Your task to perform on an android device: Show me productivity apps on the Play Store Image 0: 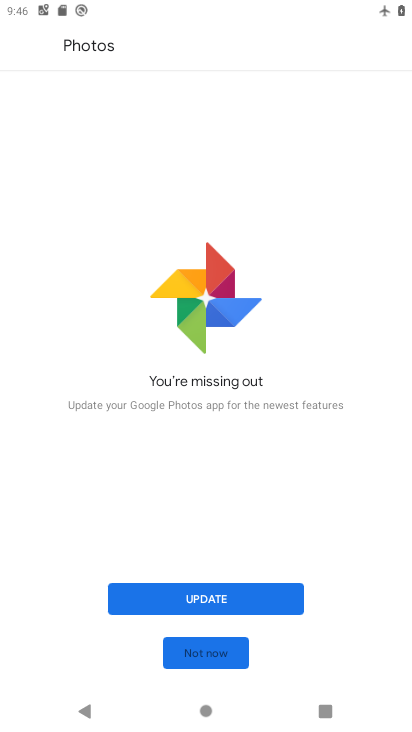
Step 0: press home button
Your task to perform on an android device: Show me productivity apps on the Play Store Image 1: 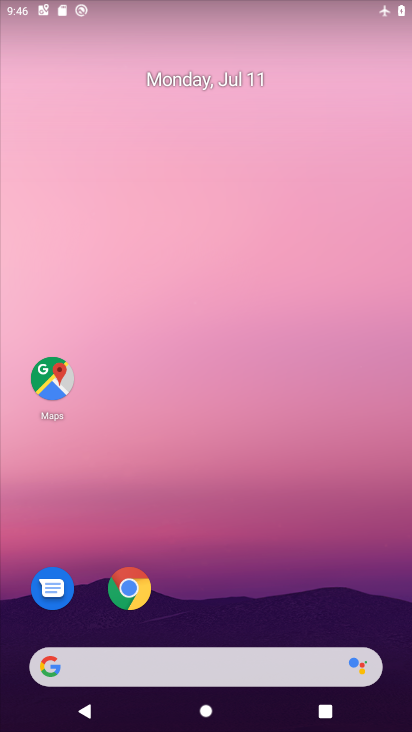
Step 1: drag from (262, 604) to (220, 0)
Your task to perform on an android device: Show me productivity apps on the Play Store Image 2: 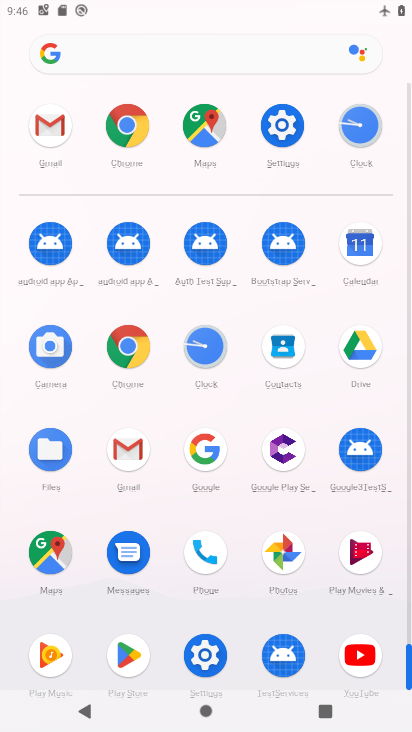
Step 2: click (120, 635)
Your task to perform on an android device: Show me productivity apps on the Play Store Image 3: 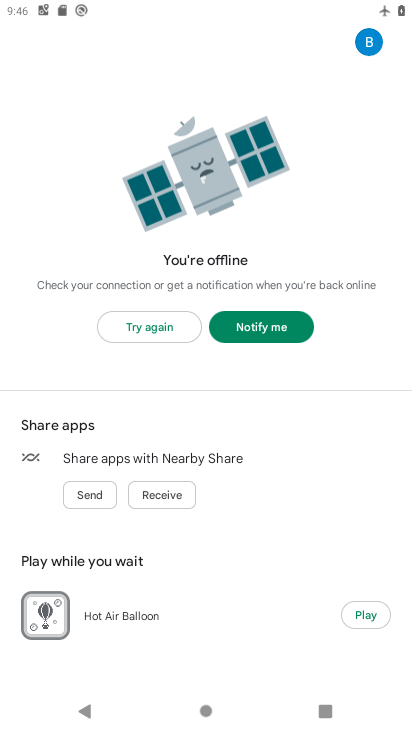
Step 3: task complete